Your task to perform on an android device: open the mobile data screen to see how much data has been used Image 0: 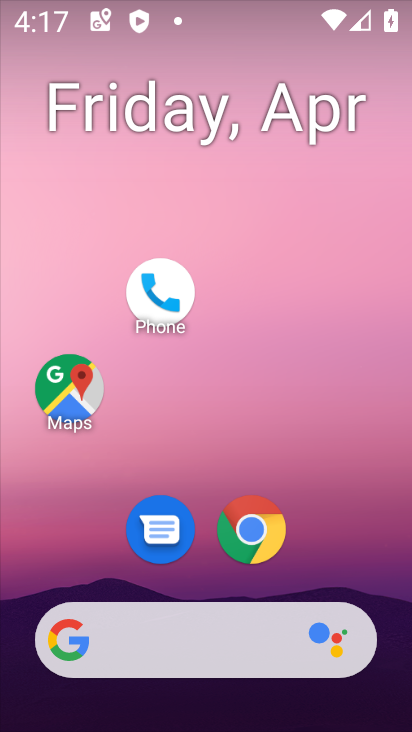
Step 0: drag from (213, 576) to (213, 19)
Your task to perform on an android device: open the mobile data screen to see how much data has been used Image 1: 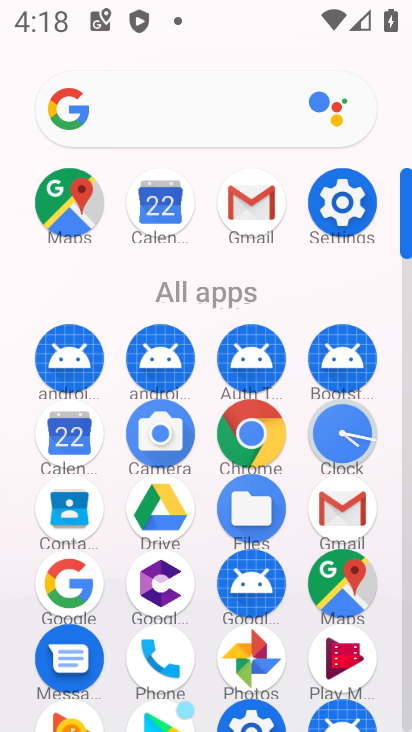
Step 1: click (342, 207)
Your task to perform on an android device: open the mobile data screen to see how much data has been used Image 2: 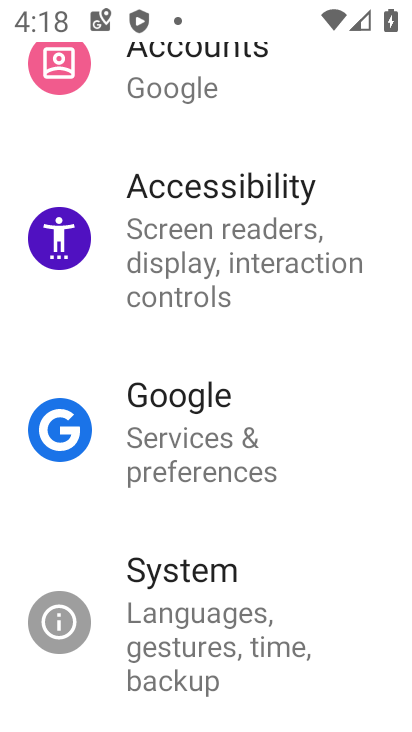
Step 2: drag from (174, 106) to (156, 726)
Your task to perform on an android device: open the mobile data screen to see how much data has been used Image 3: 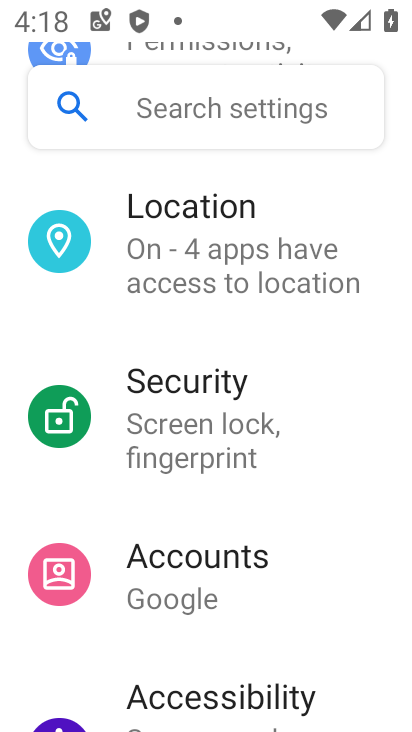
Step 3: drag from (203, 202) to (207, 731)
Your task to perform on an android device: open the mobile data screen to see how much data has been used Image 4: 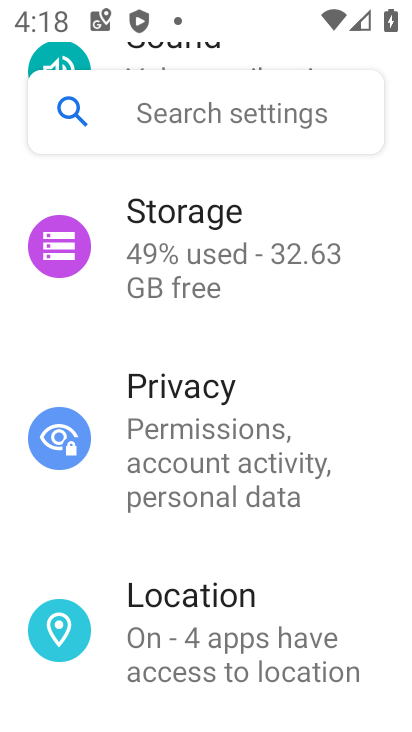
Step 4: drag from (198, 227) to (193, 730)
Your task to perform on an android device: open the mobile data screen to see how much data has been used Image 5: 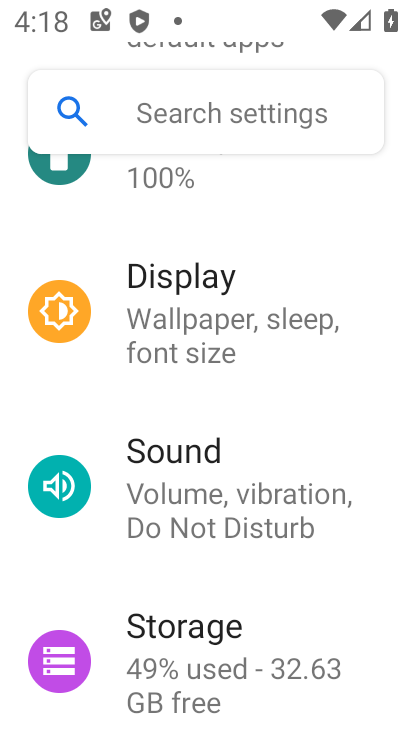
Step 5: drag from (202, 207) to (229, 713)
Your task to perform on an android device: open the mobile data screen to see how much data has been used Image 6: 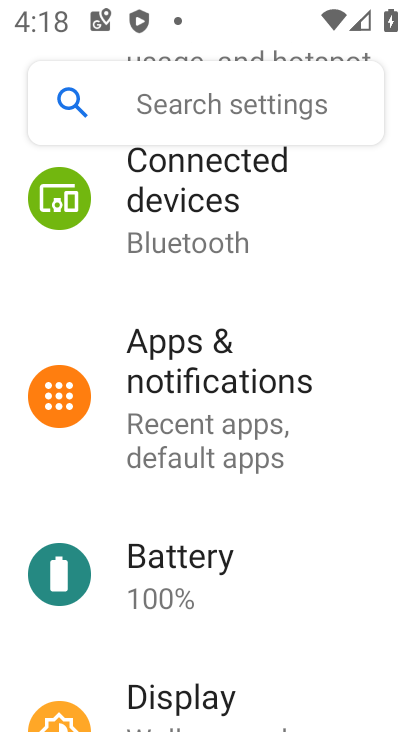
Step 6: drag from (187, 219) to (238, 704)
Your task to perform on an android device: open the mobile data screen to see how much data has been used Image 7: 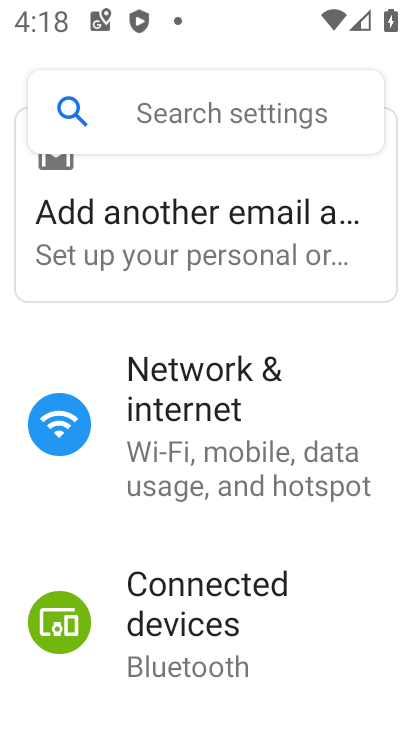
Step 7: click (215, 417)
Your task to perform on an android device: open the mobile data screen to see how much data has been used Image 8: 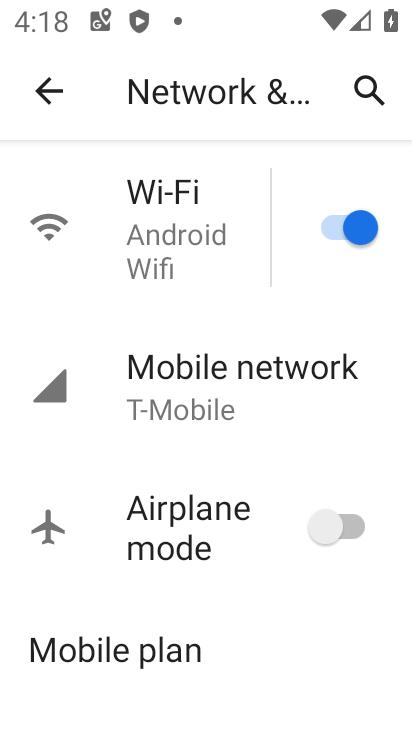
Step 8: click (221, 401)
Your task to perform on an android device: open the mobile data screen to see how much data has been used Image 9: 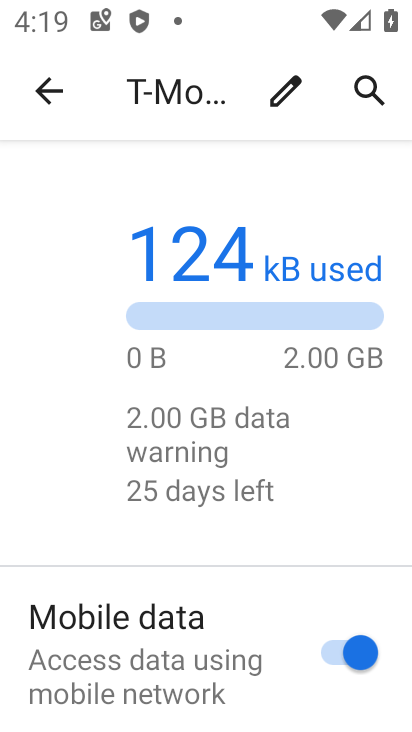
Step 9: drag from (219, 648) to (225, 187)
Your task to perform on an android device: open the mobile data screen to see how much data has been used Image 10: 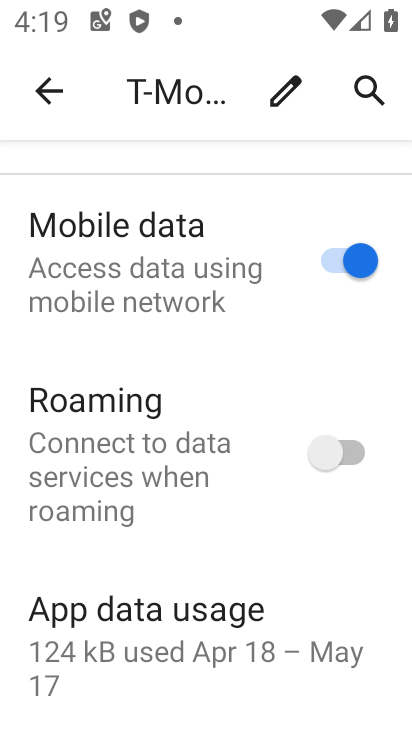
Step 10: click (188, 611)
Your task to perform on an android device: open the mobile data screen to see how much data has been used Image 11: 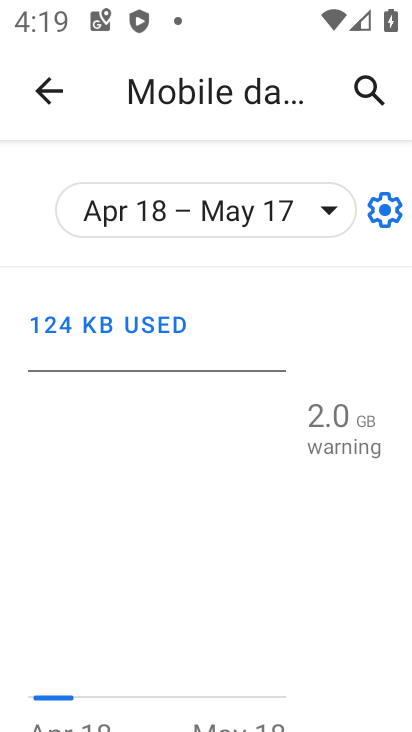
Step 11: task complete